Your task to perform on an android device: Search for sushi restaurants on Maps Image 0: 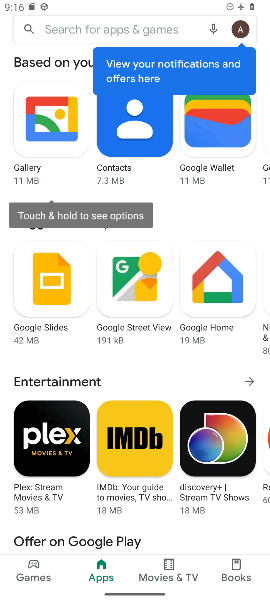
Step 0: press home button
Your task to perform on an android device: Search for sushi restaurants on Maps Image 1: 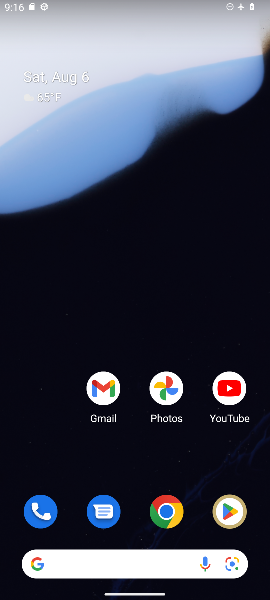
Step 1: drag from (137, 458) to (116, 97)
Your task to perform on an android device: Search for sushi restaurants on Maps Image 2: 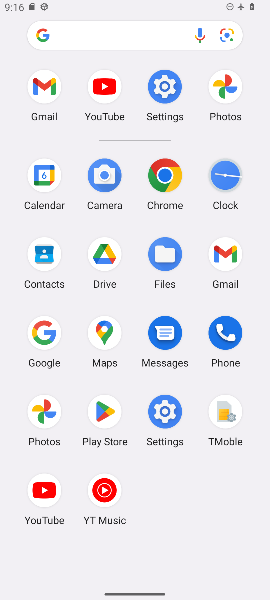
Step 2: click (95, 332)
Your task to perform on an android device: Search for sushi restaurants on Maps Image 3: 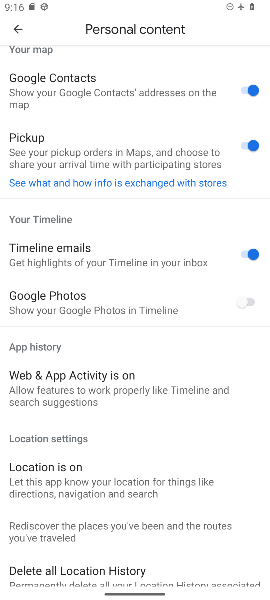
Step 3: press back button
Your task to perform on an android device: Search for sushi restaurants on Maps Image 4: 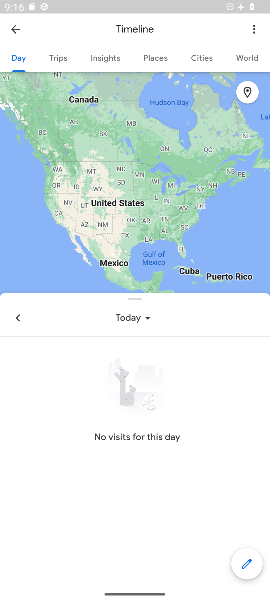
Step 4: click (4, 24)
Your task to perform on an android device: Search for sushi restaurants on Maps Image 5: 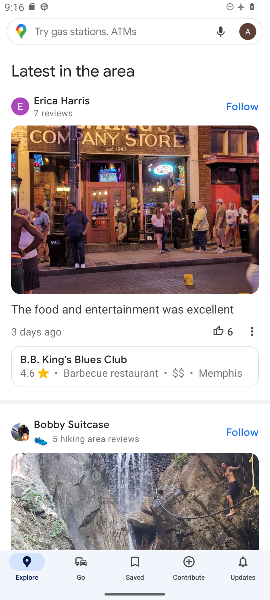
Step 5: click (87, 26)
Your task to perform on an android device: Search for sushi restaurants on Maps Image 6: 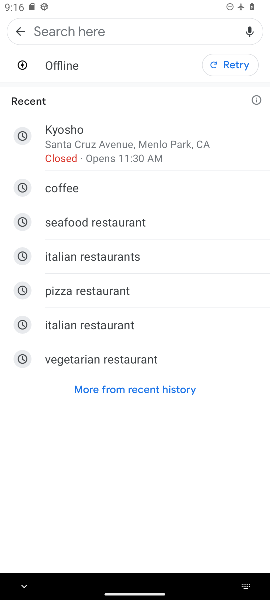
Step 6: type "sushi restaurants"
Your task to perform on an android device: Search for sushi restaurants on Maps Image 7: 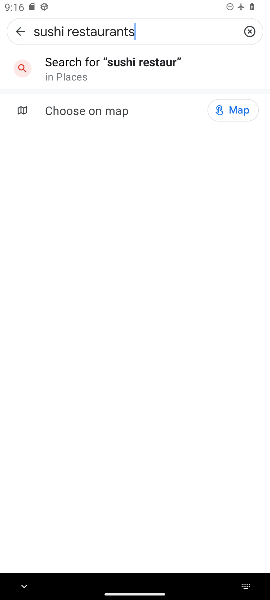
Step 7: type ""
Your task to perform on an android device: Search for sushi restaurants on Maps Image 8: 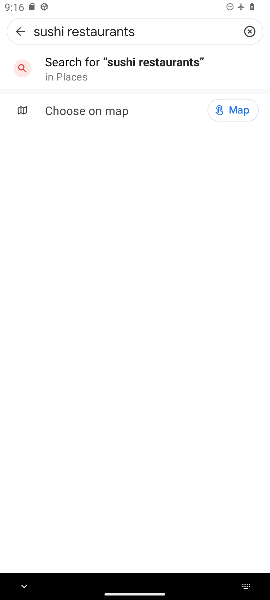
Step 8: click (103, 62)
Your task to perform on an android device: Search for sushi restaurants on Maps Image 9: 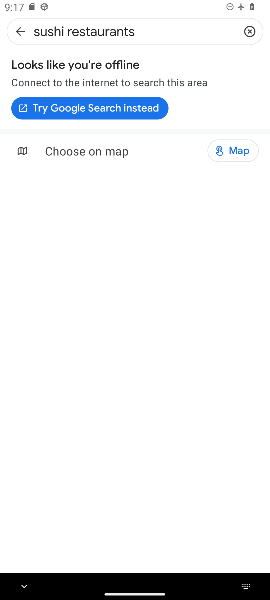
Step 9: drag from (250, 2) to (178, 470)
Your task to perform on an android device: Search for sushi restaurants on Maps Image 10: 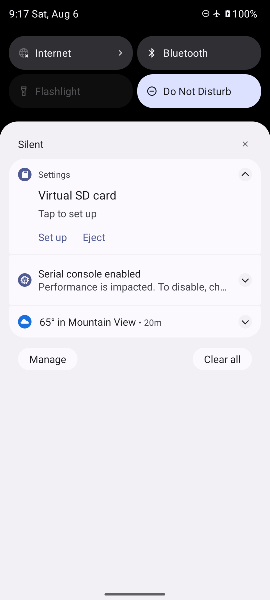
Step 10: drag from (129, 91) to (216, 482)
Your task to perform on an android device: Search for sushi restaurants on Maps Image 11: 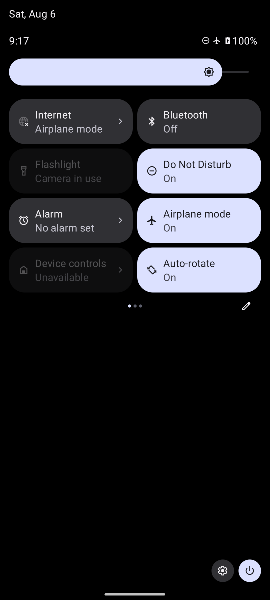
Step 11: click (202, 218)
Your task to perform on an android device: Search for sushi restaurants on Maps Image 12: 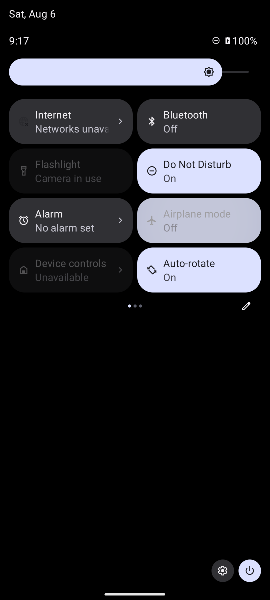
Step 12: drag from (153, 444) to (193, 110)
Your task to perform on an android device: Search for sushi restaurants on Maps Image 13: 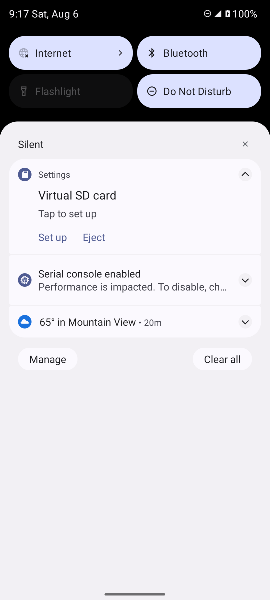
Step 13: drag from (178, 380) to (201, 131)
Your task to perform on an android device: Search for sushi restaurants on Maps Image 14: 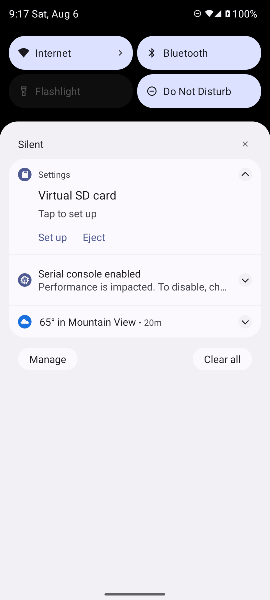
Step 14: drag from (126, 464) to (150, 13)
Your task to perform on an android device: Search for sushi restaurants on Maps Image 15: 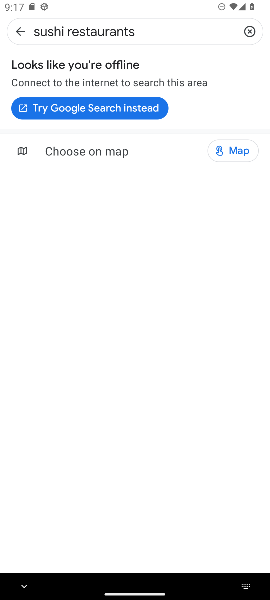
Step 15: click (144, 107)
Your task to perform on an android device: Search for sushi restaurants on Maps Image 16: 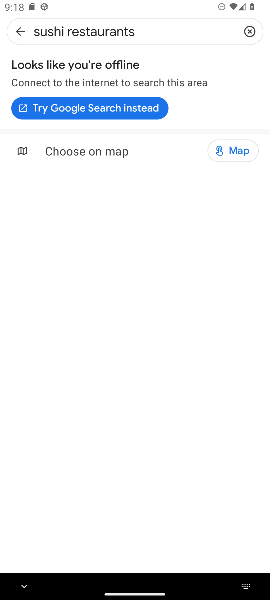
Step 16: click (89, 83)
Your task to perform on an android device: Search for sushi restaurants on Maps Image 17: 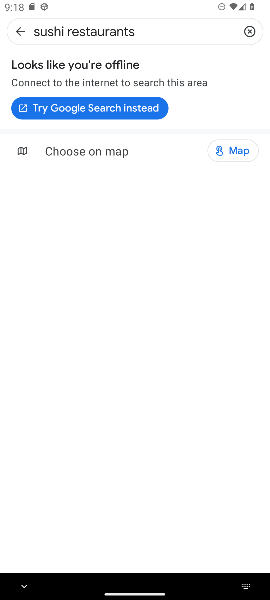
Step 17: click (154, 29)
Your task to perform on an android device: Search for sushi restaurants on Maps Image 18: 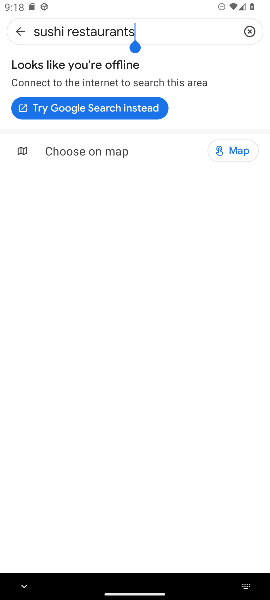
Step 18: click (146, 83)
Your task to perform on an android device: Search for sushi restaurants on Maps Image 19: 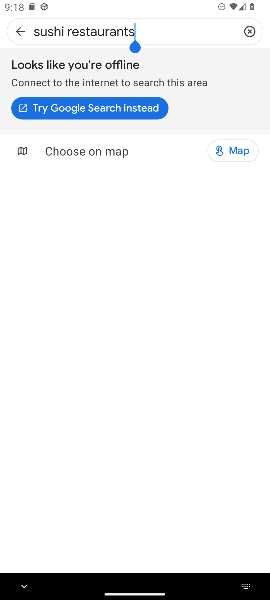
Step 19: click (101, 104)
Your task to perform on an android device: Search for sushi restaurants on Maps Image 20: 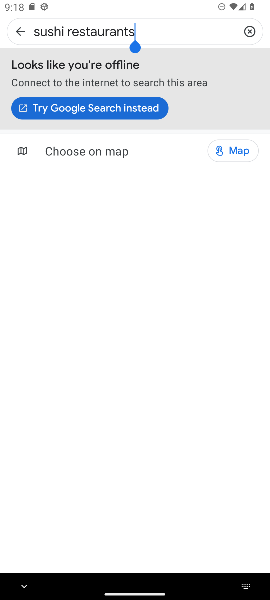
Step 20: click (99, 135)
Your task to perform on an android device: Search for sushi restaurants on Maps Image 21: 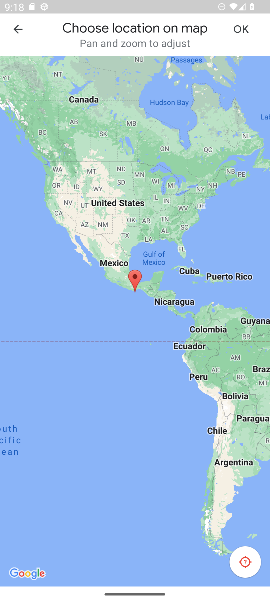
Step 21: click (4, 22)
Your task to perform on an android device: Search for sushi restaurants on Maps Image 22: 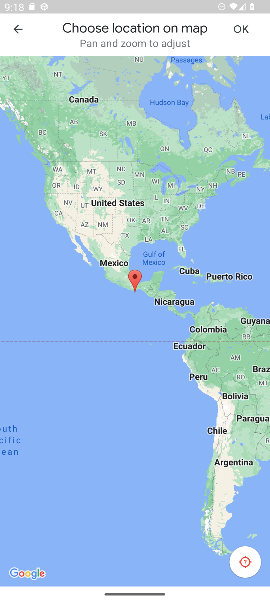
Step 22: click (15, 27)
Your task to perform on an android device: Search for sushi restaurants on Maps Image 23: 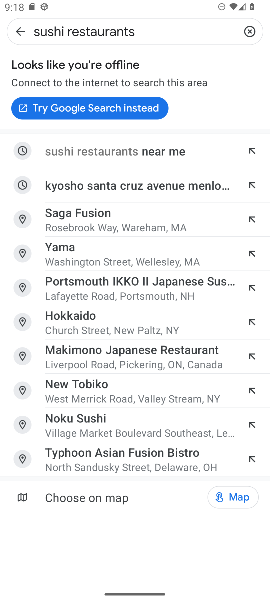
Step 23: click (71, 158)
Your task to perform on an android device: Search for sushi restaurants on Maps Image 24: 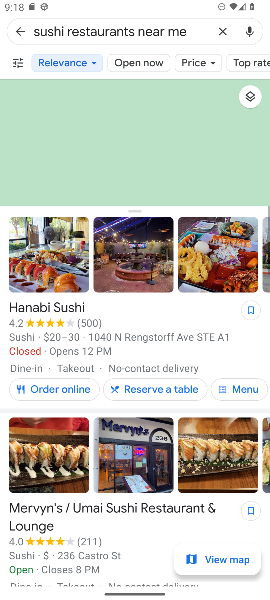
Step 24: task complete